Your task to perform on an android device: change the clock display to digital Image 0: 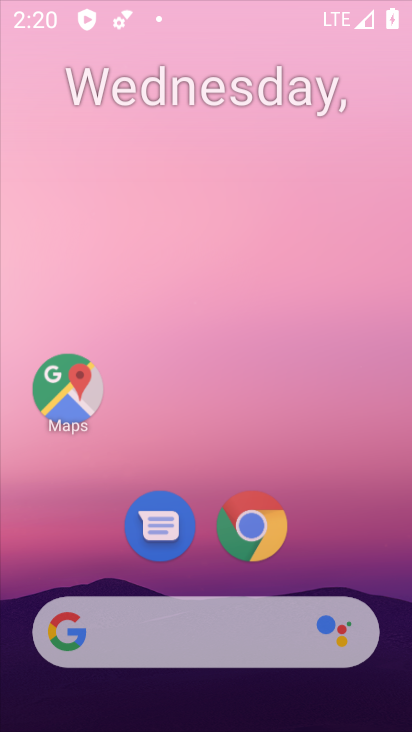
Step 0: drag from (212, 534) to (204, 240)
Your task to perform on an android device: change the clock display to digital Image 1: 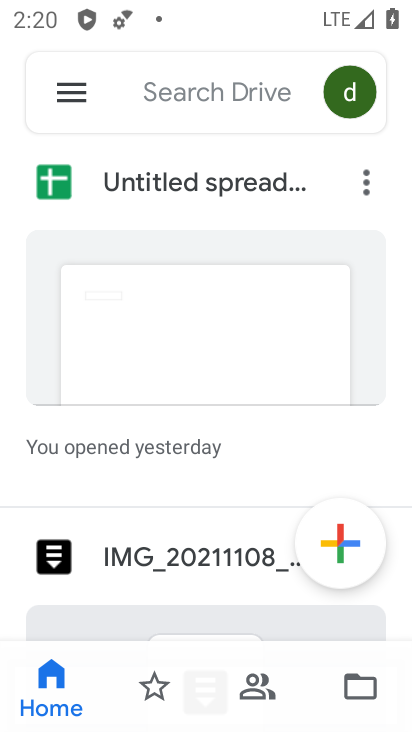
Step 1: press home button
Your task to perform on an android device: change the clock display to digital Image 2: 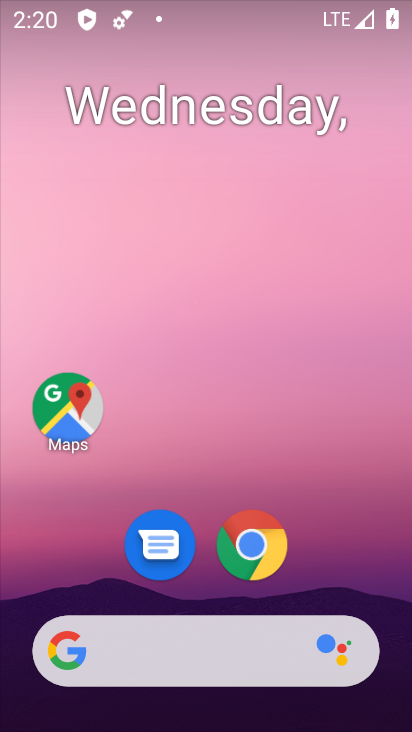
Step 2: drag from (299, 552) to (292, 6)
Your task to perform on an android device: change the clock display to digital Image 3: 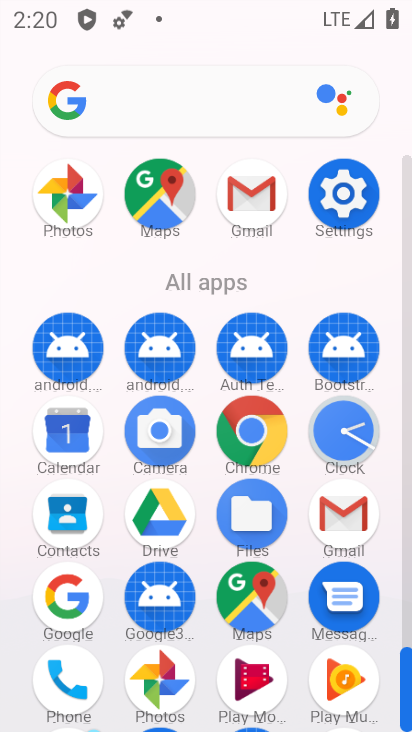
Step 3: click (337, 435)
Your task to perform on an android device: change the clock display to digital Image 4: 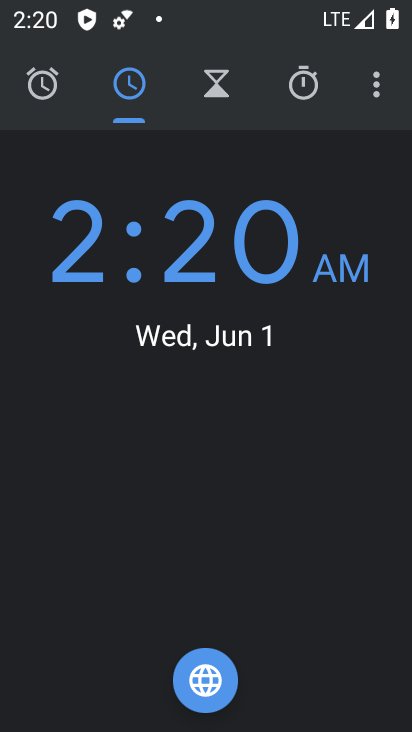
Step 4: click (378, 97)
Your task to perform on an android device: change the clock display to digital Image 5: 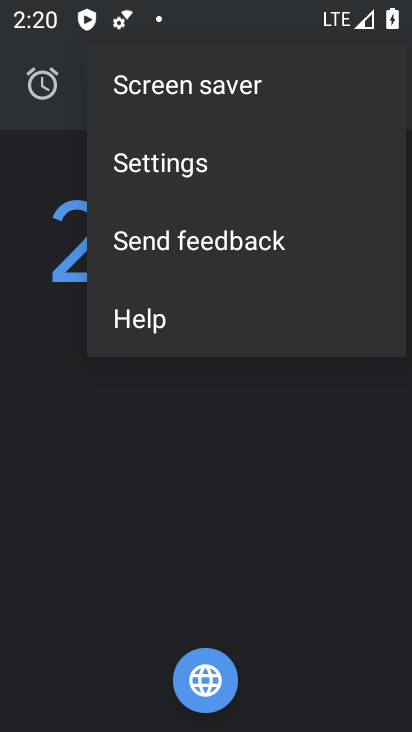
Step 5: click (218, 169)
Your task to perform on an android device: change the clock display to digital Image 6: 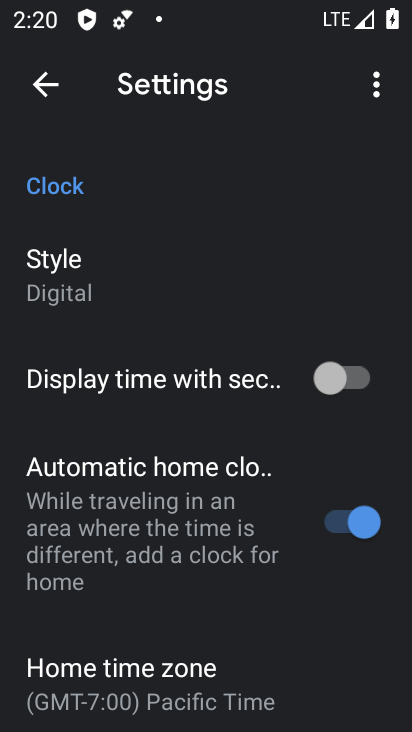
Step 6: click (51, 274)
Your task to perform on an android device: change the clock display to digital Image 7: 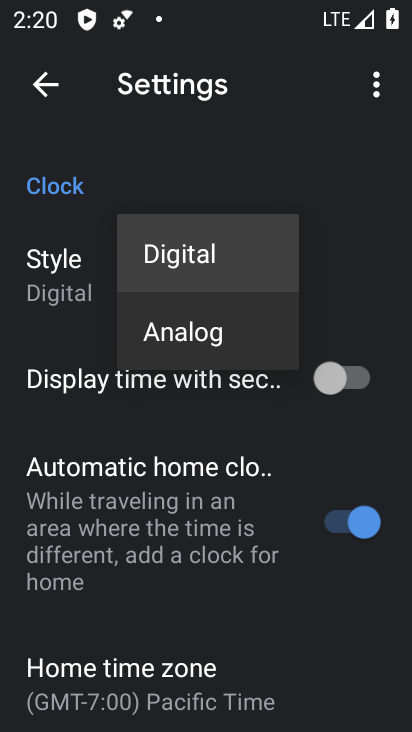
Step 7: task complete